Your task to perform on an android device: turn off airplane mode Image 0: 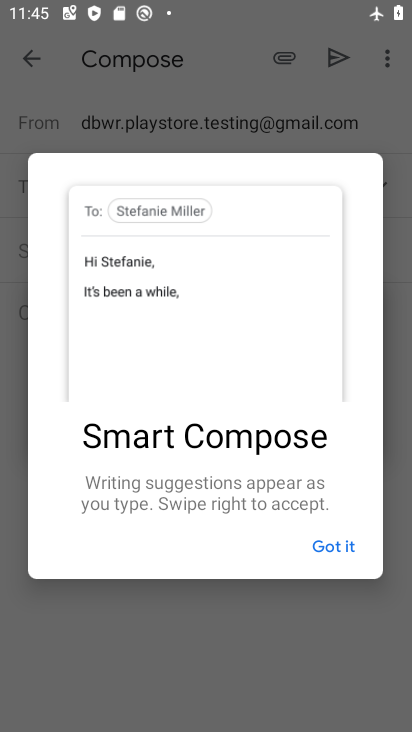
Step 0: press home button
Your task to perform on an android device: turn off airplane mode Image 1: 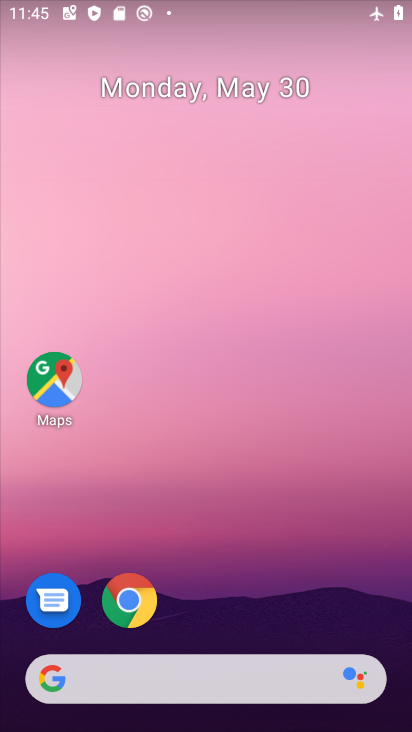
Step 1: drag from (207, 726) to (216, 141)
Your task to perform on an android device: turn off airplane mode Image 2: 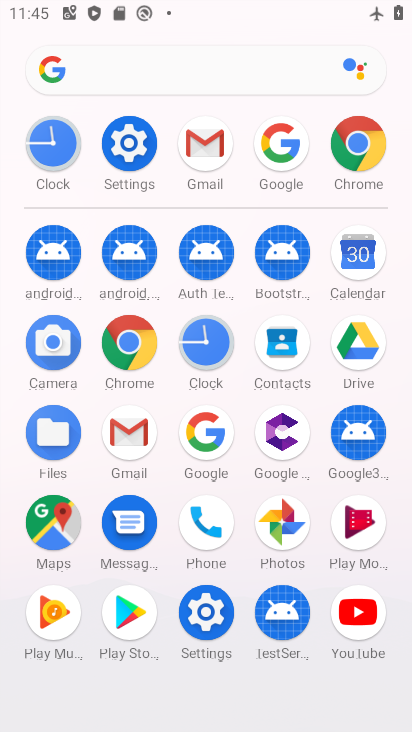
Step 2: click (142, 142)
Your task to perform on an android device: turn off airplane mode Image 3: 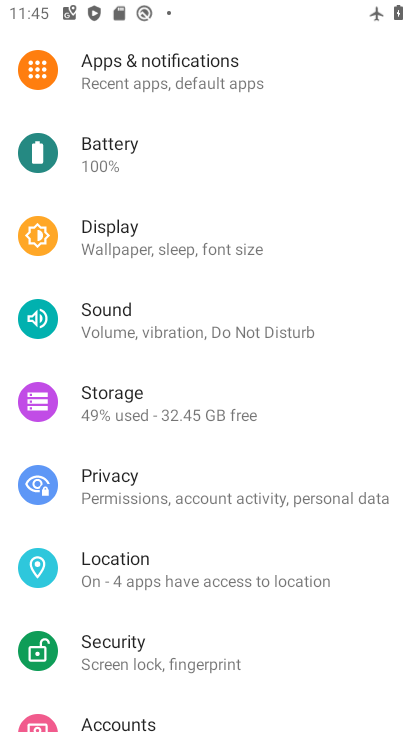
Step 3: drag from (183, 138) to (223, 678)
Your task to perform on an android device: turn off airplane mode Image 4: 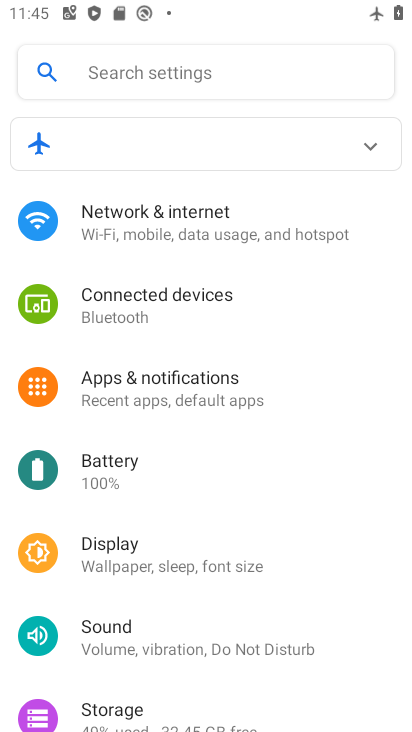
Step 4: click (135, 233)
Your task to perform on an android device: turn off airplane mode Image 5: 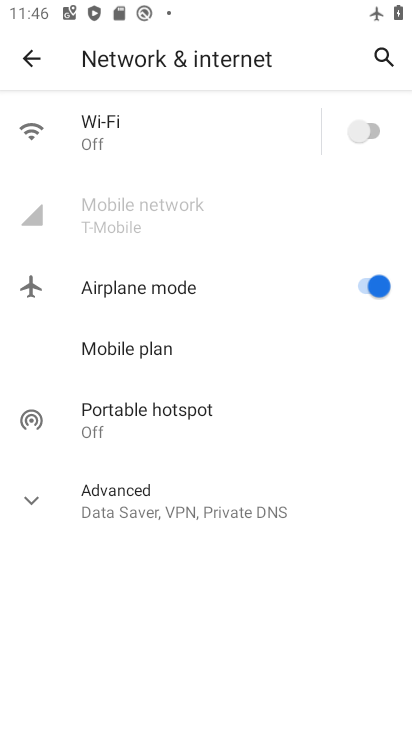
Step 5: click (360, 288)
Your task to perform on an android device: turn off airplane mode Image 6: 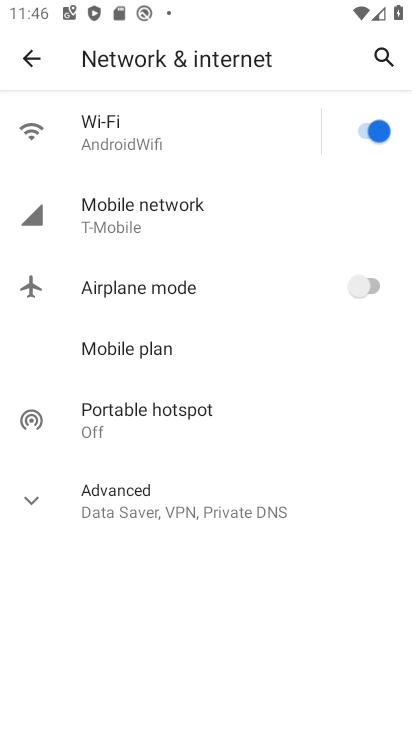
Step 6: task complete